Your task to perform on an android device: Show me popular games on the Play Store Image 0: 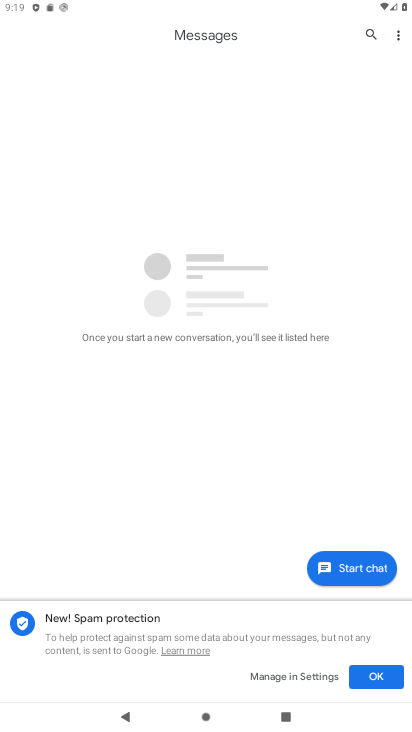
Step 0: click (372, 674)
Your task to perform on an android device: Show me popular games on the Play Store Image 1: 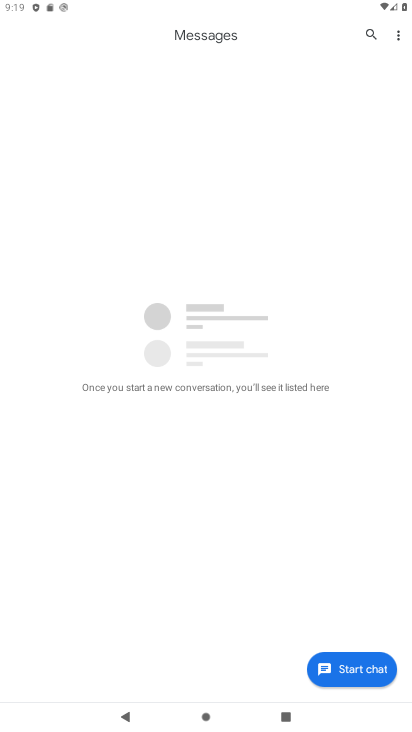
Step 1: press back button
Your task to perform on an android device: Show me popular games on the Play Store Image 2: 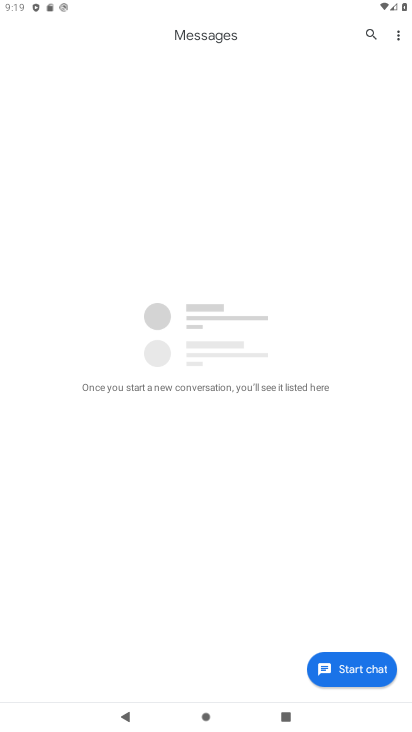
Step 2: press back button
Your task to perform on an android device: Show me popular games on the Play Store Image 3: 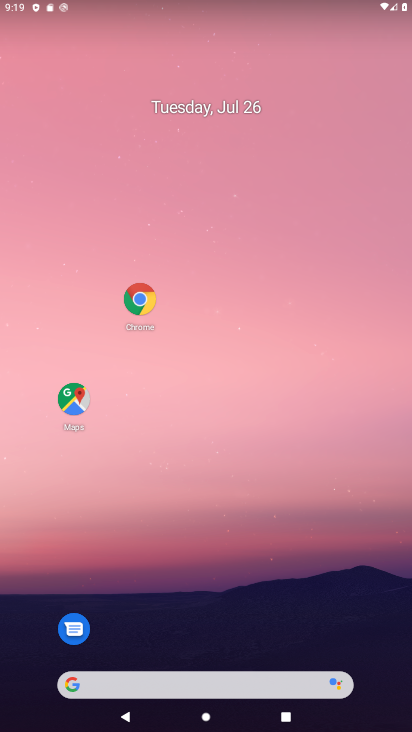
Step 3: drag from (233, 574) to (165, 49)
Your task to perform on an android device: Show me popular games on the Play Store Image 4: 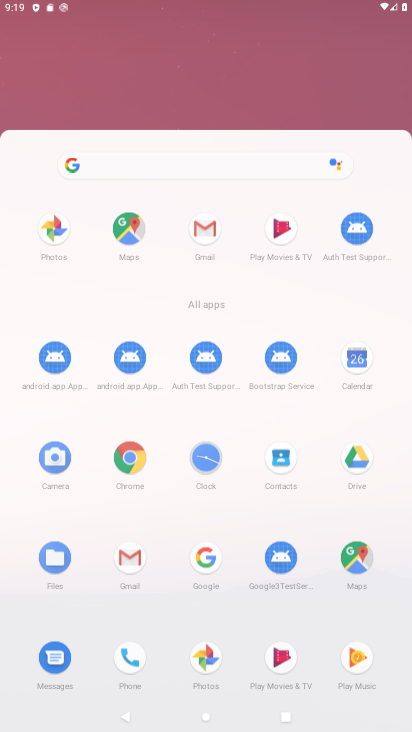
Step 4: click (162, 290)
Your task to perform on an android device: Show me popular games on the Play Store Image 5: 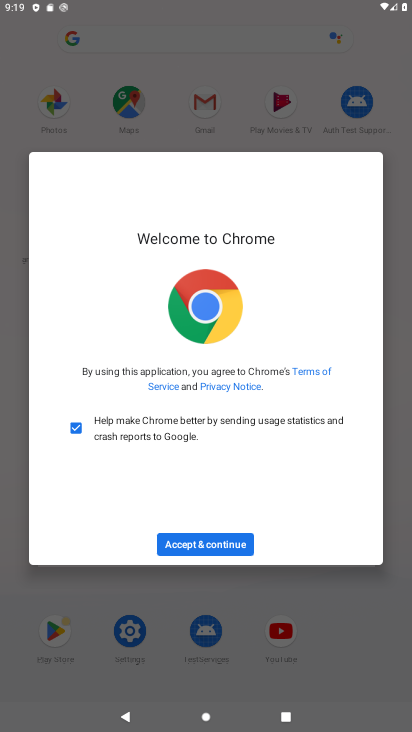
Step 5: press back button
Your task to perform on an android device: Show me popular games on the Play Store Image 6: 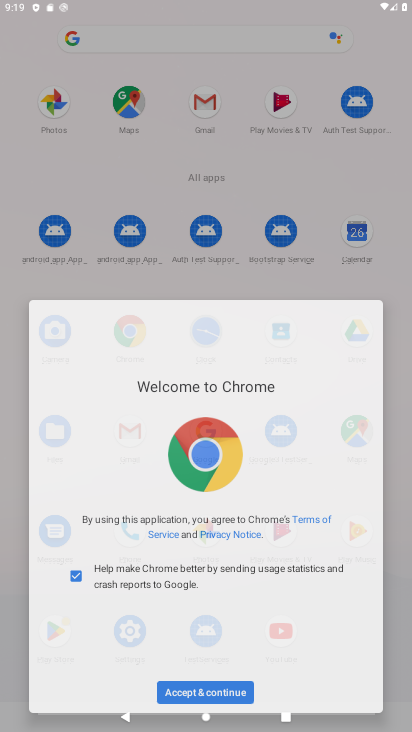
Step 6: press back button
Your task to perform on an android device: Show me popular games on the Play Store Image 7: 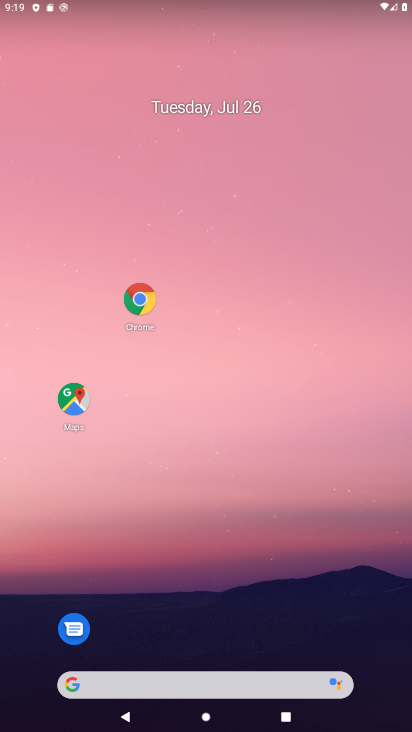
Step 7: press back button
Your task to perform on an android device: Show me popular games on the Play Store Image 8: 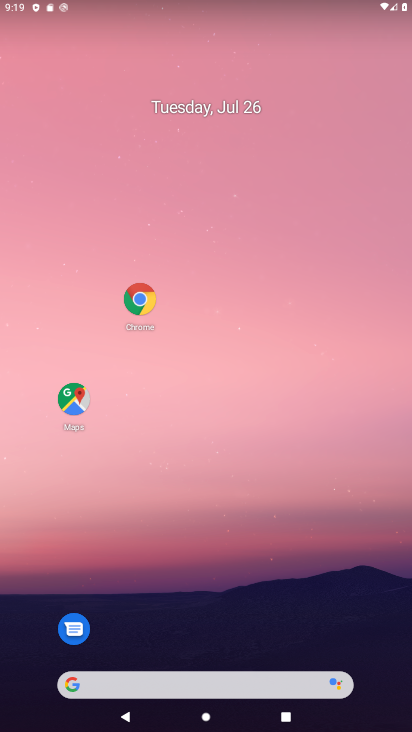
Step 8: drag from (217, 378) to (217, 41)
Your task to perform on an android device: Show me popular games on the Play Store Image 9: 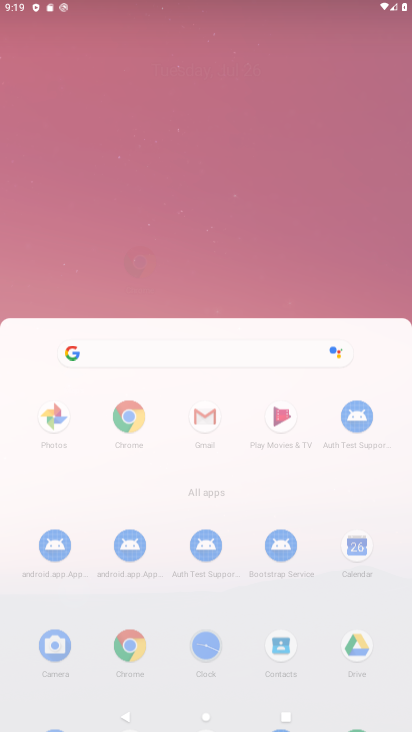
Step 9: click (231, 303)
Your task to perform on an android device: Show me popular games on the Play Store Image 10: 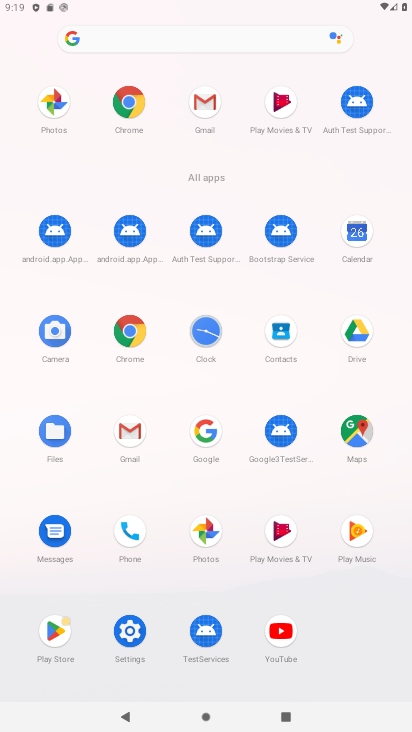
Step 10: click (60, 628)
Your task to perform on an android device: Show me popular games on the Play Store Image 11: 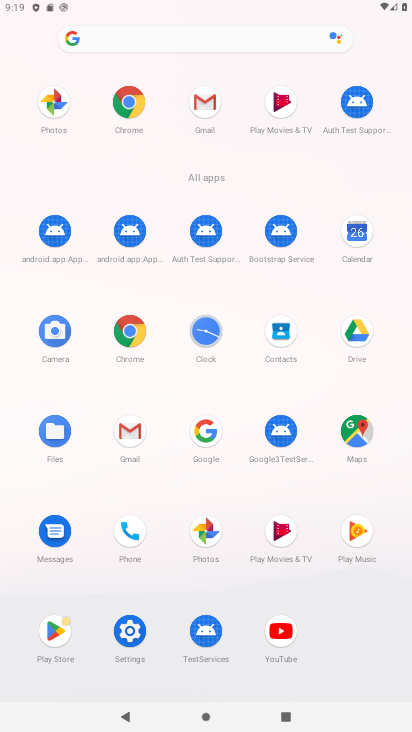
Step 11: click (57, 629)
Your task to perform on an android device: Show me popular games on the Play Store Image 12: 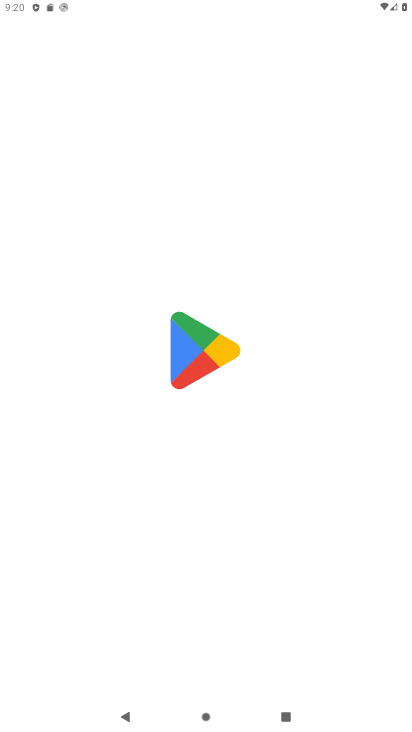
Step 12: click (57, 626)
Your task to perform on an android device: Show me popular games on the Play Store Image 13: 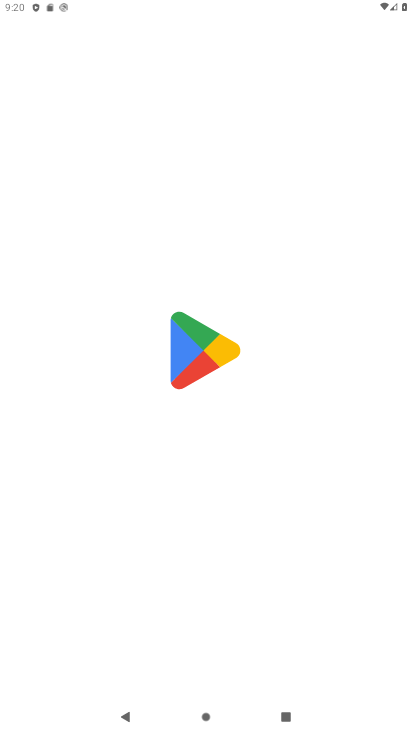
Step 13: click (57, 626)
Your task to perform on an android device: Show me popular games on the Play Store Image 14: 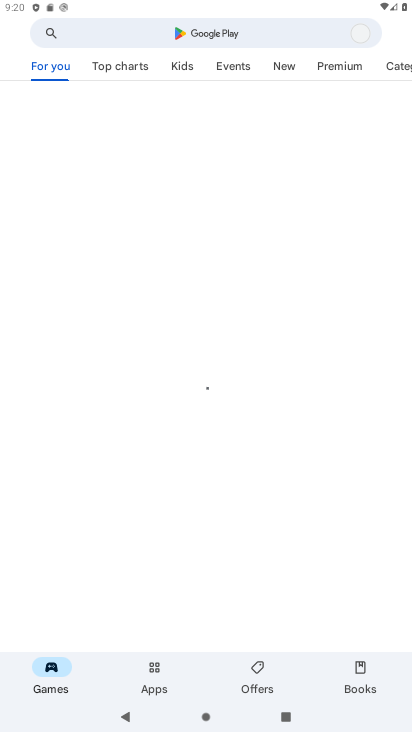
Step 14: click (250, 31)
Your task to perform on an android device: Show me popular games on the Play Store Image 15: 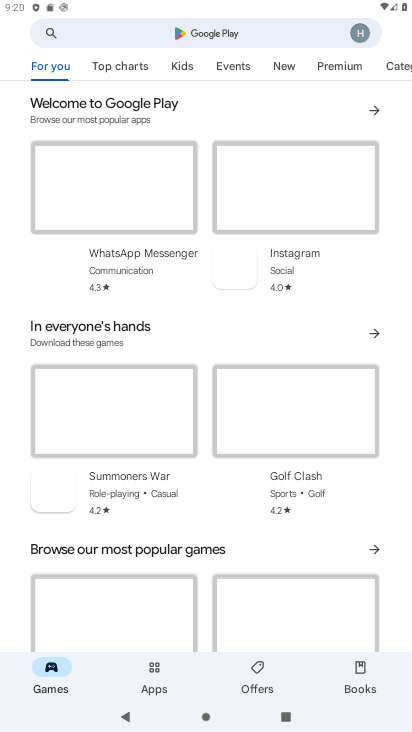
Step 15: click (253, 32)
Your task to perform on an android device: Show me popular games on the Play Store Image 16: 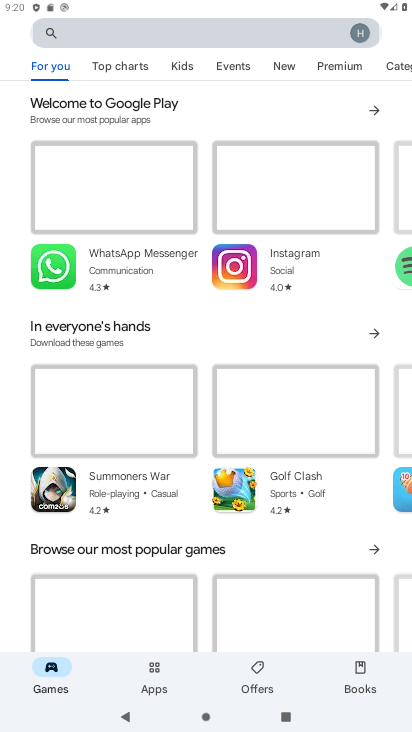
Step 16: click (258, 31)
Your task to perform on an android device: Show me popular games on the Play Store Image 17: 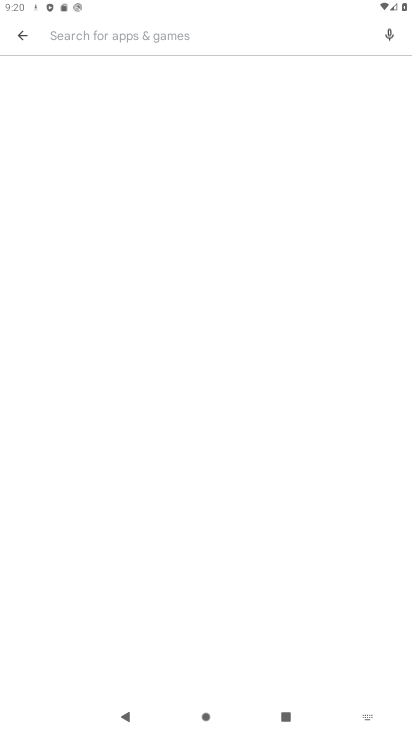
Step 17: click (258, 31)
Your task to perform on an android device: Show me popular games on the Play Store Image 18: 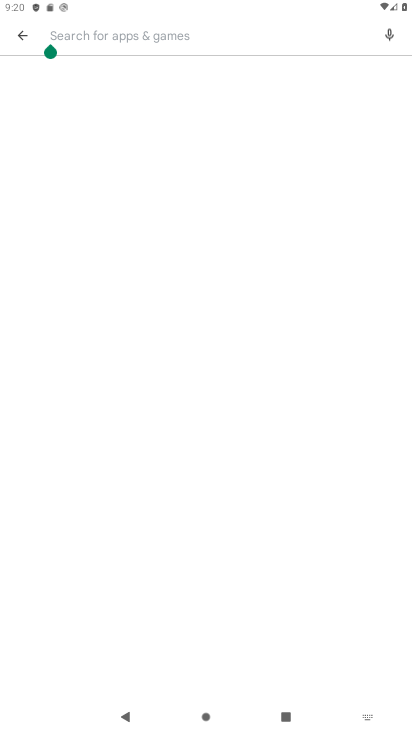
Step 18: click (258, 31)
Your task to perform on an android device: Show me popular games on the Play Store Image 19: 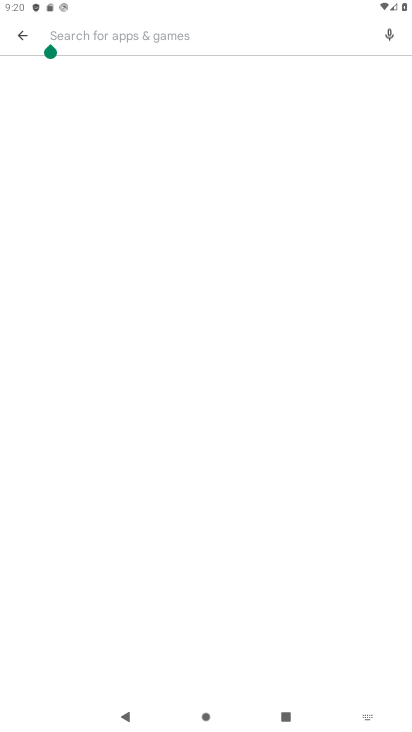
Step 19: click (256, 28)
Your task to perform on an android device: Show me popular games on the Play Store Image 20: 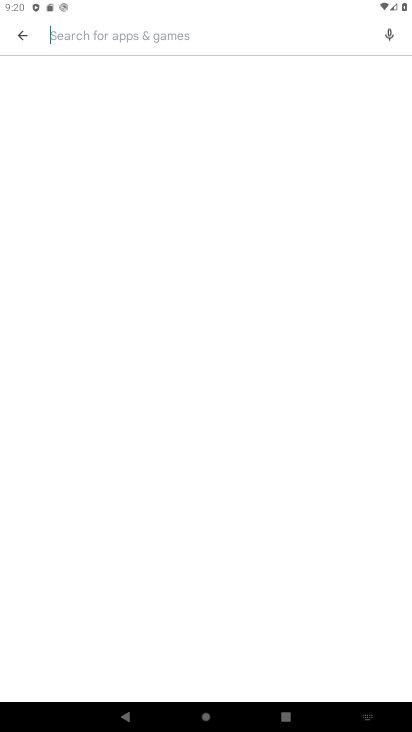
Step 20: click (257, 29)
Your task to perform on an android device: Show me popular games on the Play Store Image 21: 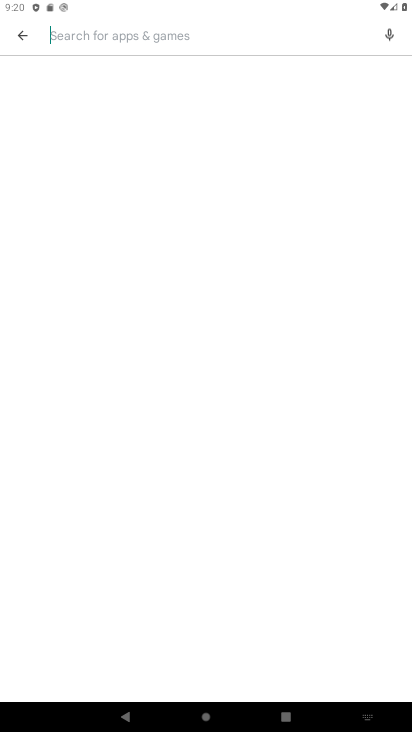
Step 21: click (268, 19)
Your task to perform on an android device: Show me popular games on the Play Store Image 22: 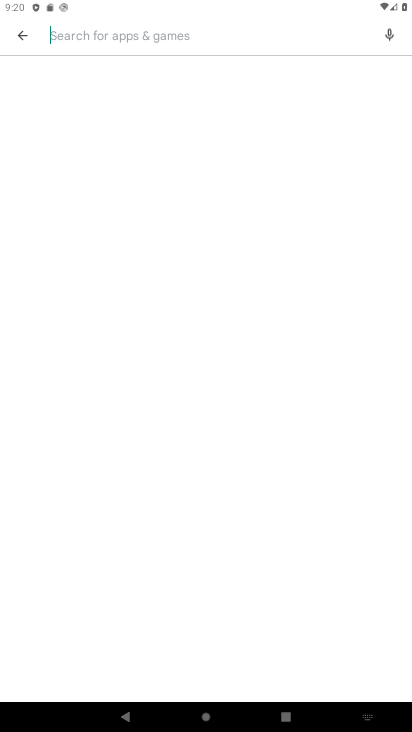
Step 22: click (268, 19)
Your task to perform on an android device: Show me popular games on the Play Store Image 23: 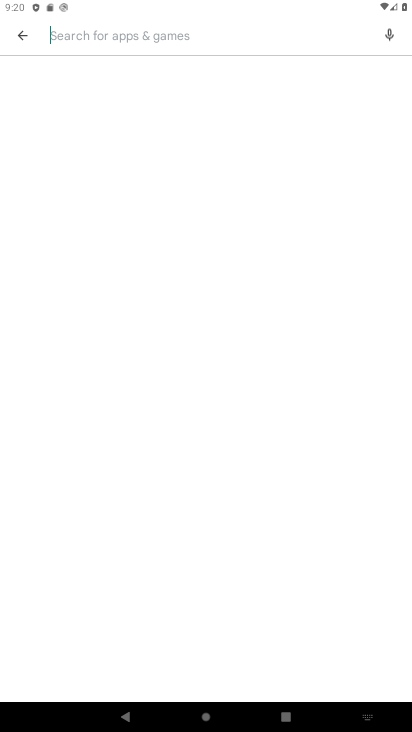
Step 23: click (270, 19)
Your task to perform on an android device: Show me popular games on the Play Store Image 24: 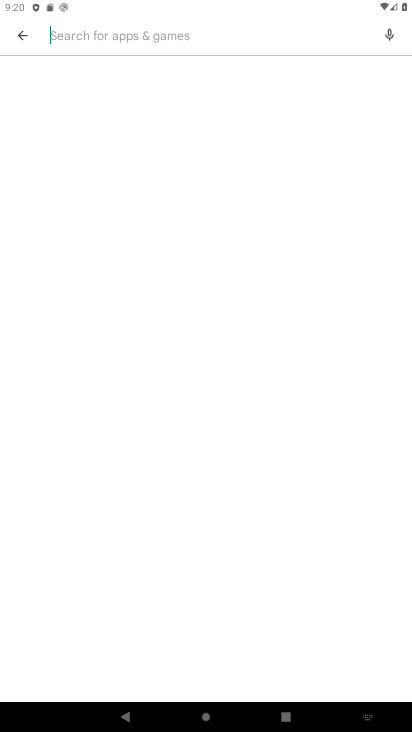
Step 24: type "popular games"
Your task to perform on an android device: Show me popular games on the Play Store Image 25: 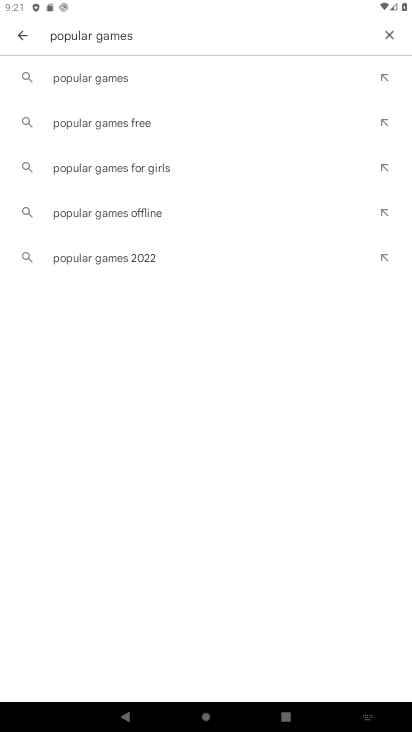
Step 25: click (107, 84)
Your task to perform on an android device: Show me popular games on the Play Store Image 26: 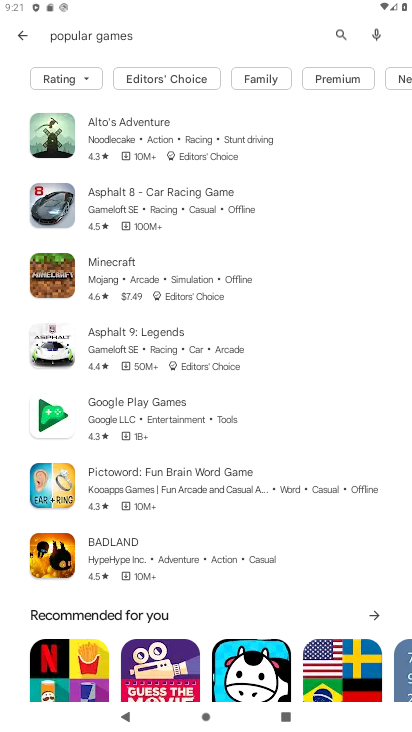
Step 26: task complete